Your task to perform on an android device: turn on translation in the chrome app Image 0: 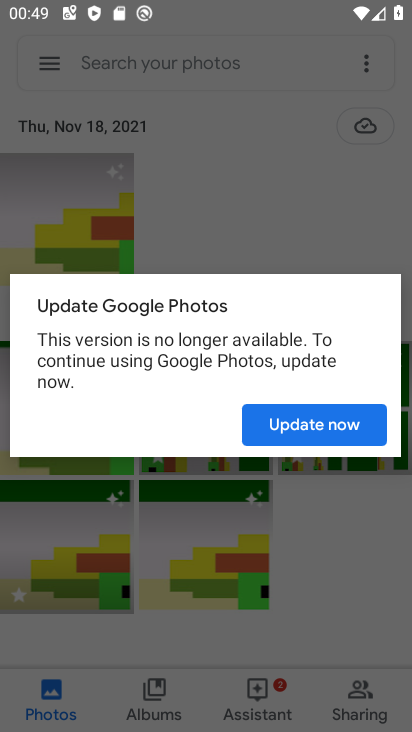
Step 0: press back button
Your task to perform on an android device: turn on translation in the chrome app Image 1: 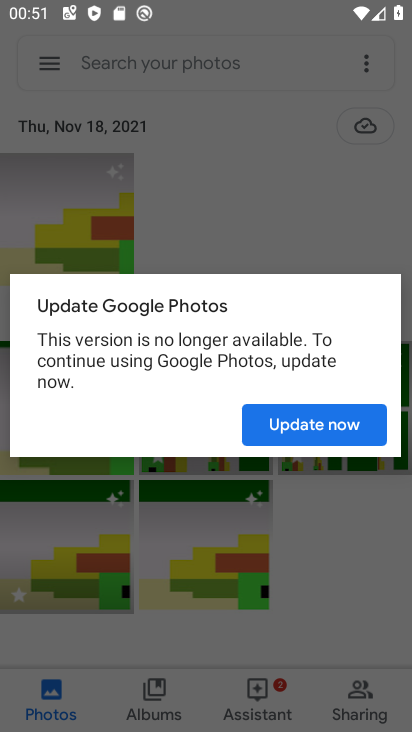
Step 1: press back button
Your task to perform on an android device: turn on translation in the chrome app Image 2: 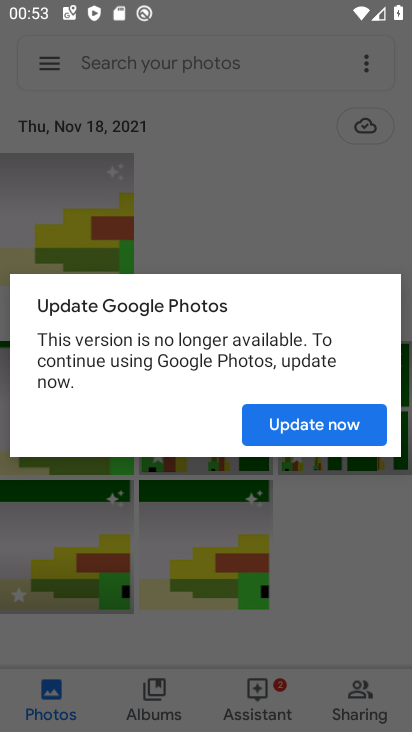
Step 2: press home button
Your task to perform on an android device: turn on translation in the chrome app Image 3: 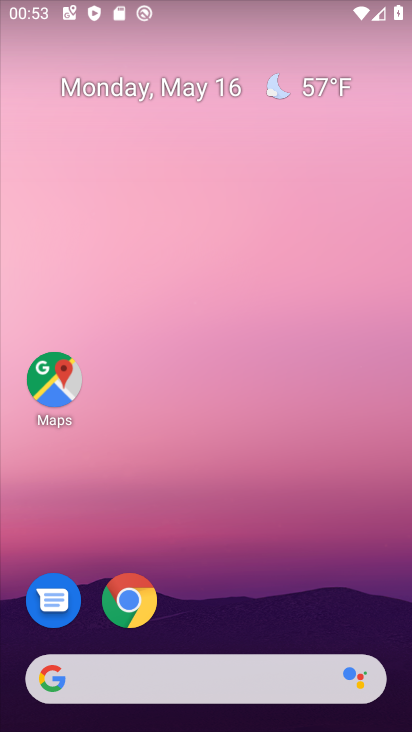
Step 3: click (115, 610)
Your task to perform on an android device: turn on translation in the chrome app Image 4: 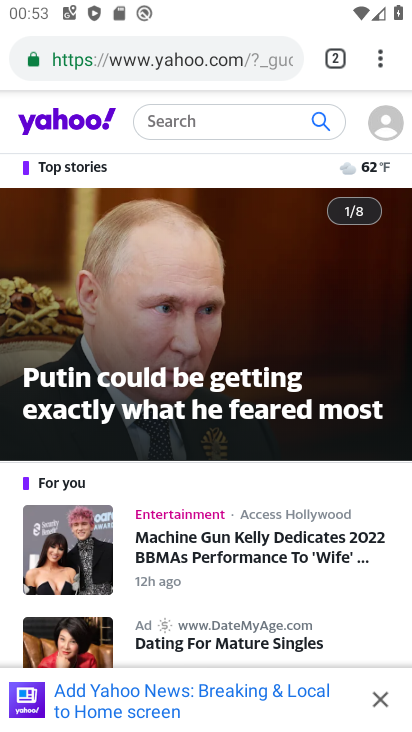
Step 4: drag from (383, 58) to (186, 626)
Your task to perform on an android device: turn on translation in the chrome app Image 5: 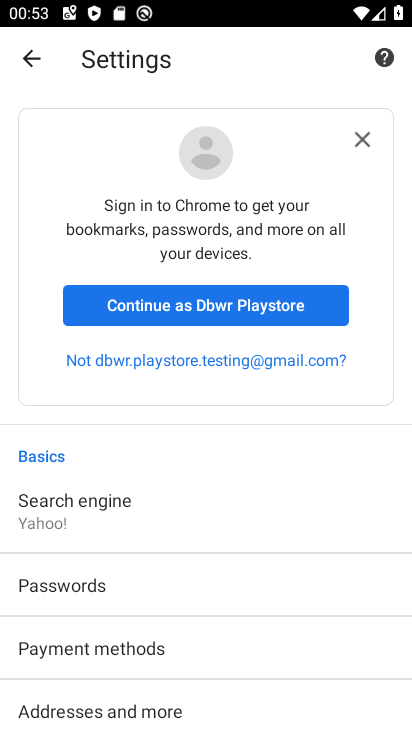
Step 5: drag from (103, 656) to (260, 84)
Your task to perform on an android device: turn on translation in the chrome app Image 6: 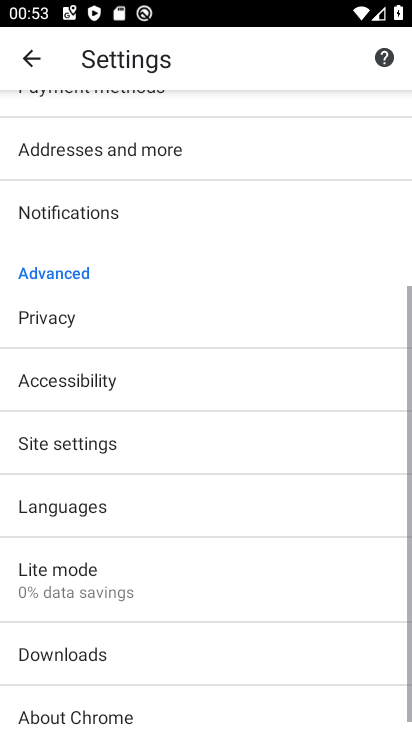
Step 6: drag from (140, 595) to (205, 238)
Your task to perform on an android device: turn on translation in the chrome app Image 7: 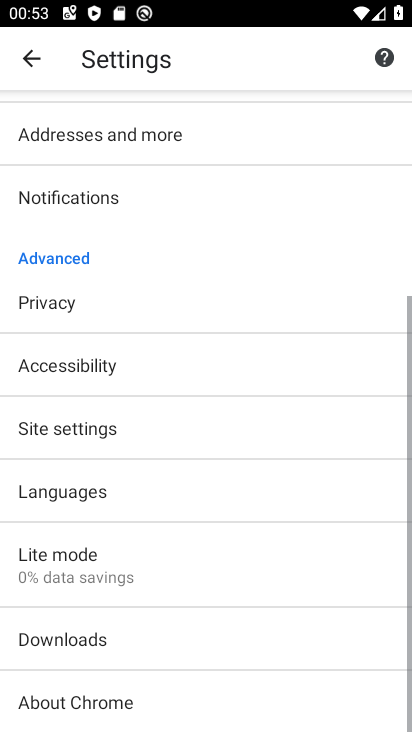
Step 7: click (121, 491)
Your task to perform on an android device: turn on translation in the chrome app Image 8: 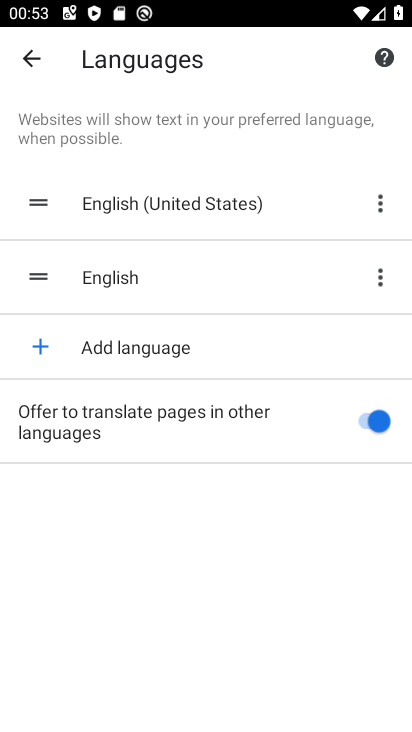
Step 8: task complete